Your task to perform on an android device: Do I have any events this weekend? Image 0: 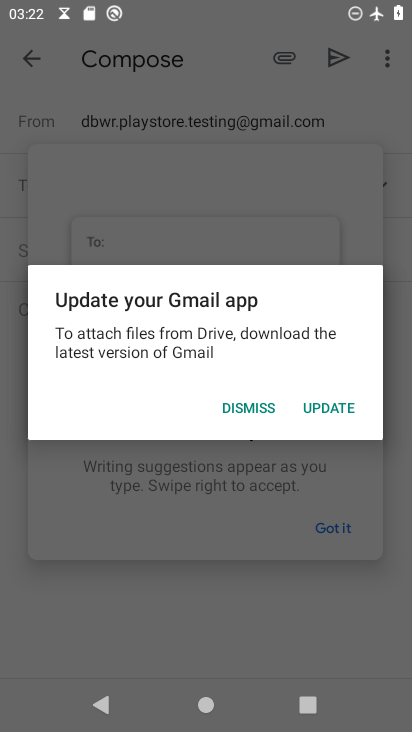
Step 0: press home button
Your task to perform on an android device: Do I have any events this weekend? Image 1: 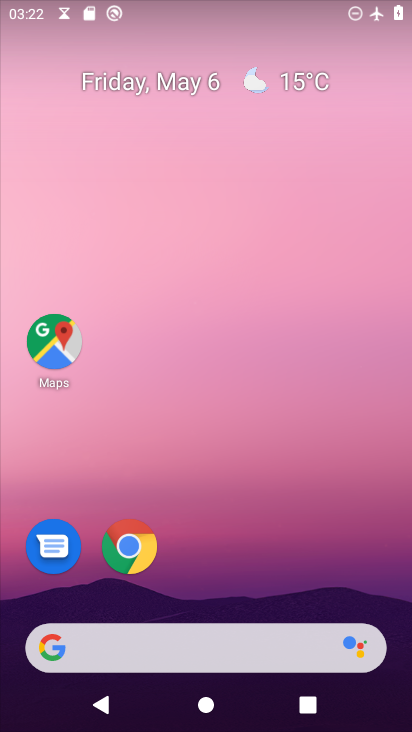
Step 1: drag from (243, 549) to (243, 191)
Your task to perform on an android device: Do I have any events this weekend? Image 2: 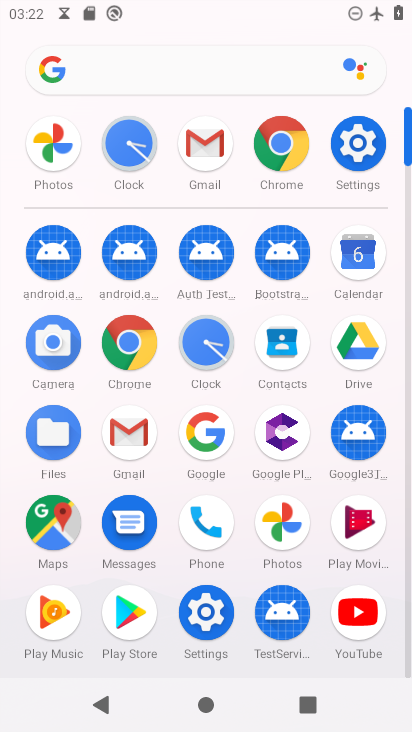
Step 2: click (362, 260)
Your task to perform on an android device: Do I have any events this weekend? Image 3: 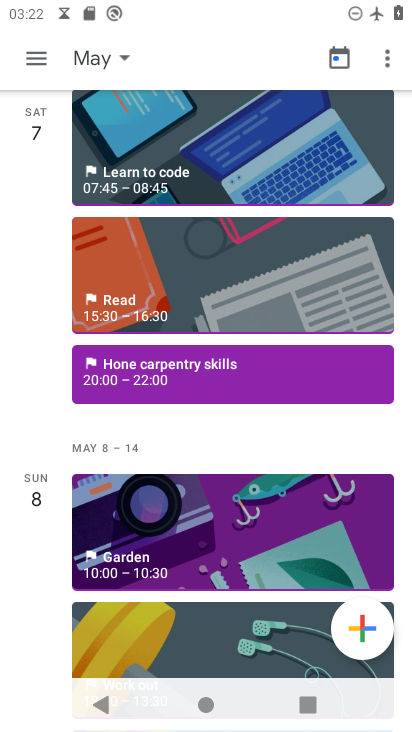
Step 3: click (44, 49)
Your task to perform on an android device: Do I have any events this weekend? Image 4: 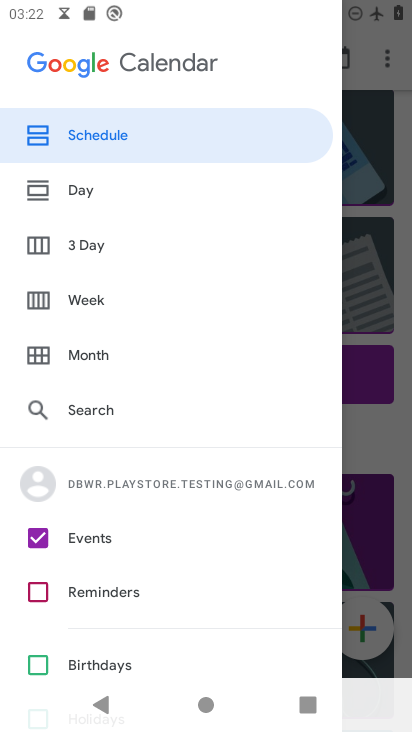
Step 4: click (106, 251)
Your task to perform on an android device: Do I have any events this weekend? Image 5: 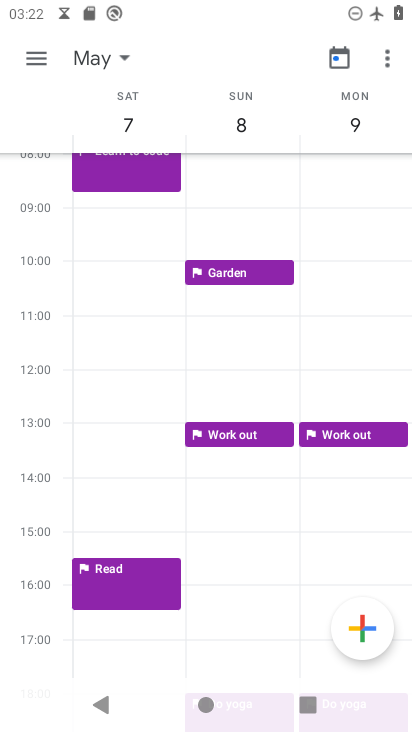
Step 5: click (103, 58)
Your task to perform on an android device: Do I have any events this weekend? Image 6: 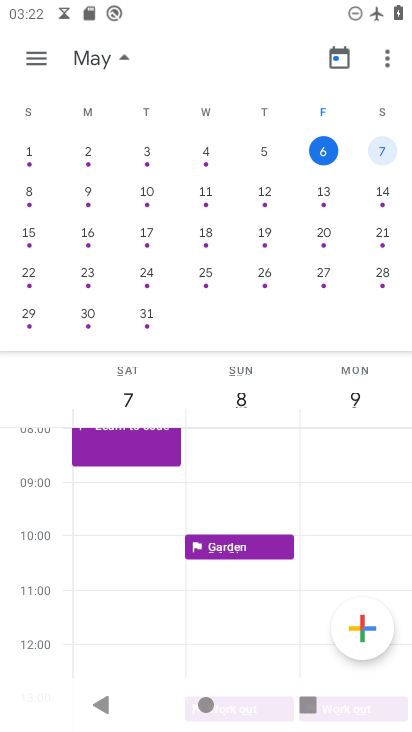
Step 6: click (321, 150)
Your task to perform on an android device: Do I have any events this weekend? Image 7: 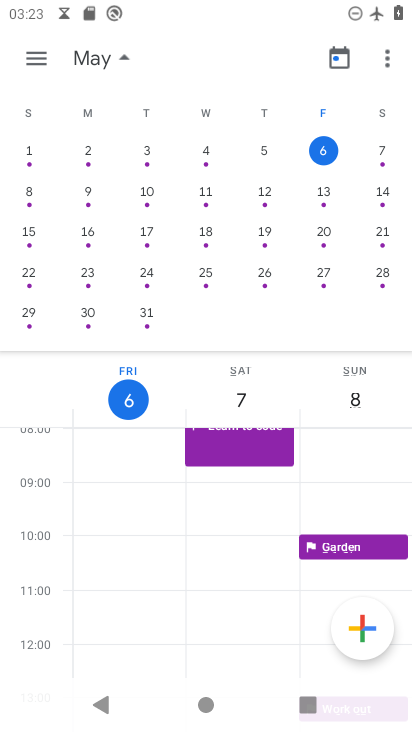
Step 7: task complete